Your task to perform on an android device: Open calendar and show me the fourth week of next month Image 0: 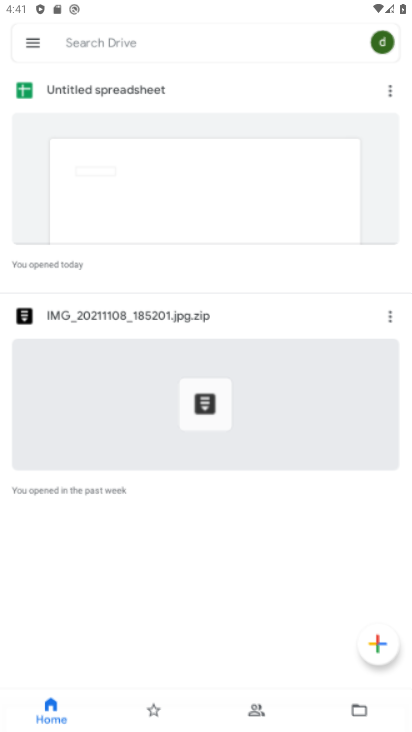
Step 0: click (129, 646)
Your task to perform on an android device: Open calendar and show me the fourth week of next month Image 1: 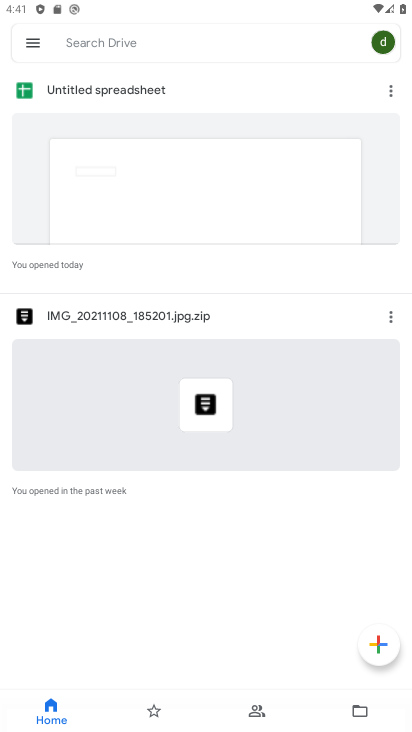
Step 1: press home button
Your task to perform on an android device: Open calendar and show me the fourth week of next month Image 2: 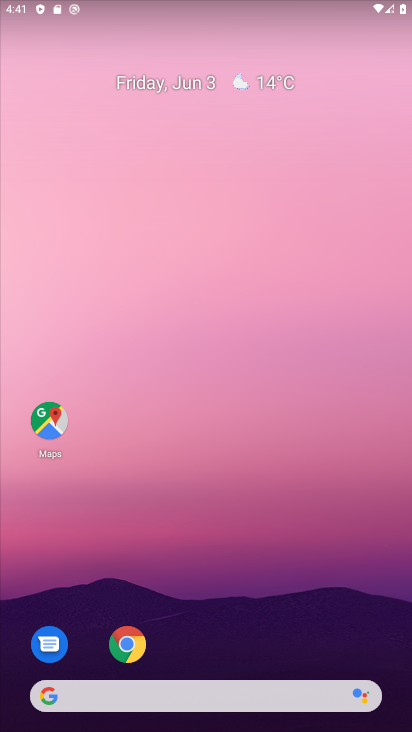
Step 2: click (171, 88)
Your task to perform on an android device: Open calendar and show me the fourth week of next month Image 3: 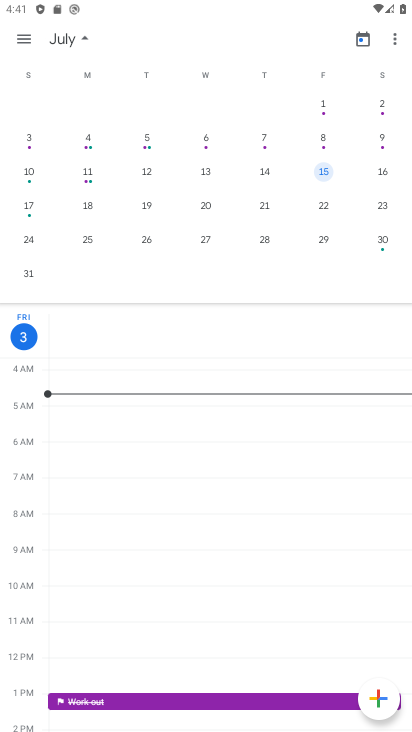
Step 3: click (324, 204)
Your task to perform on an android device: Open calendar and show me the fourth week of next month Image 4: 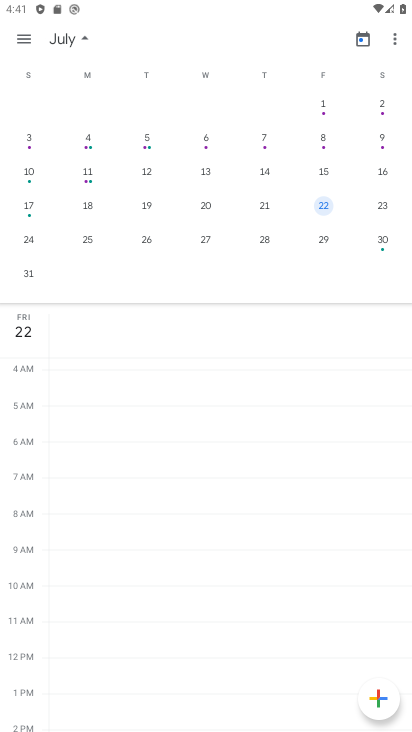
Step 4: task complete